Your task to perform on an android device: see sites visited before in the chrome app Image 0: 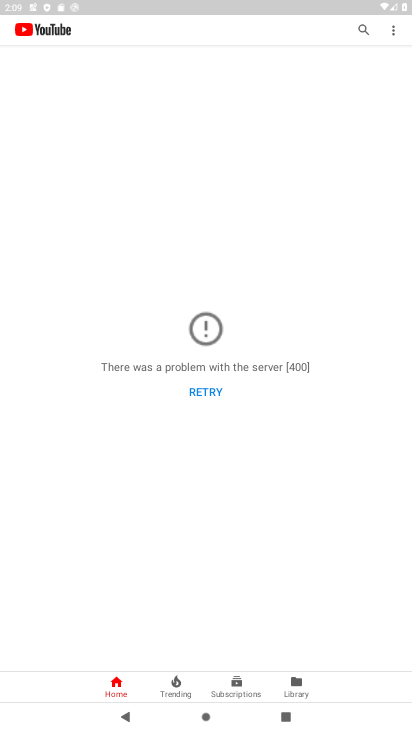
Step 0: press home button
Your task to perform on an android device: see sites visited before in the chrome app Image 1: 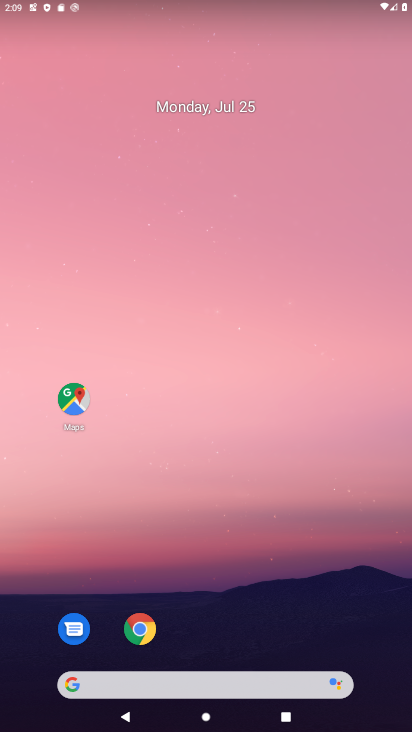
Step 1: click (138, 634)
Your task to perform on an android device: see sites visited before in the chrome app Image 2: 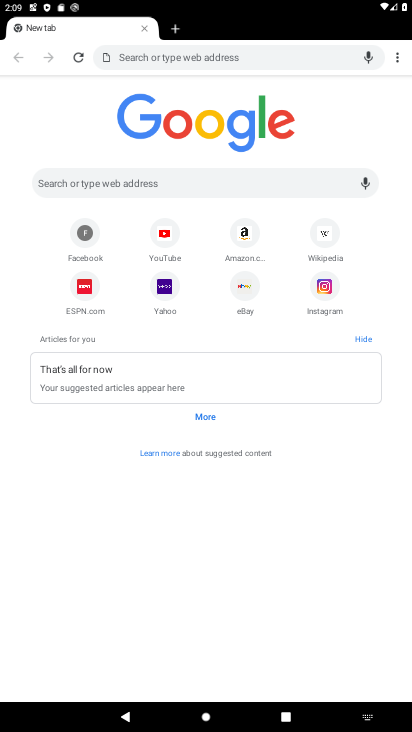
Step 2: click (395, 54)
Your task to perform on an android device: see sites visited before in the chrome app Image 3: 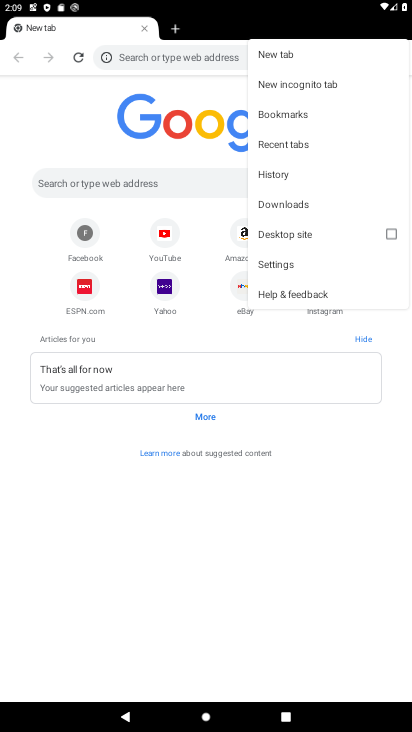
Step 3: click (291, 150)
Your task to perform on an android device: see sites visited before in the chrome app Image 4: 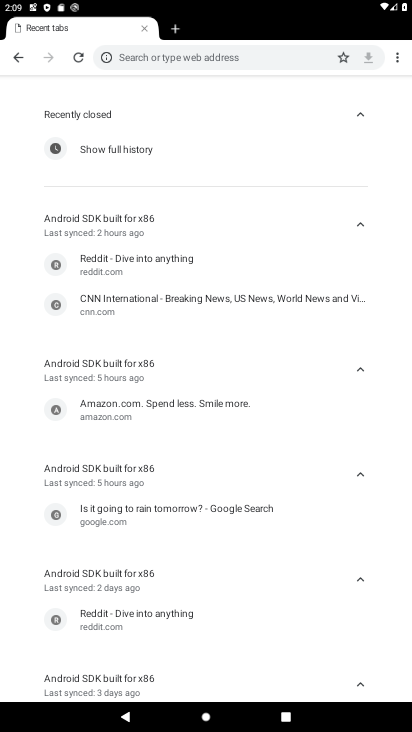
Step 4: task complete